Your task to perform on an android device: Open privacy settings Image 0: 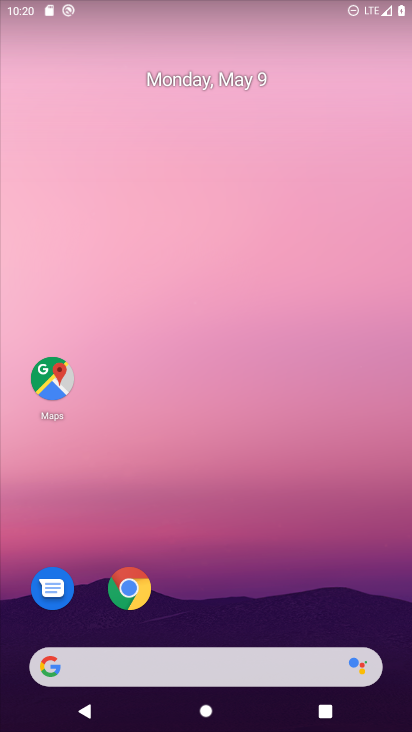
Step 0: drag from (261, 579) to (196, 172)
Your task to perform on an android device: Open privacy settings Image 1: 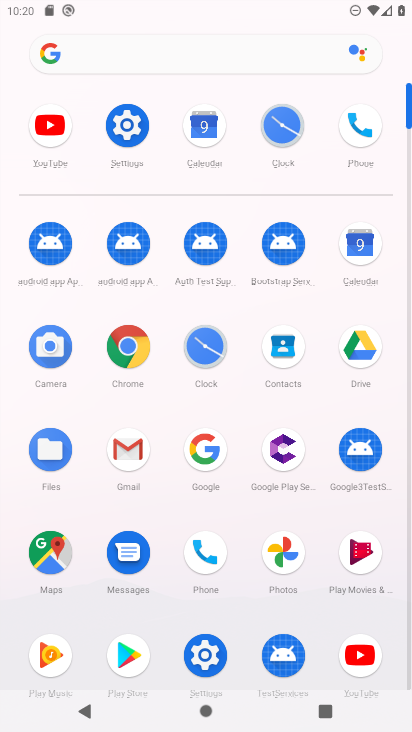
Step 1: click (118, 151)
Your task to perform on an android device: Open privacy settings Image 2: 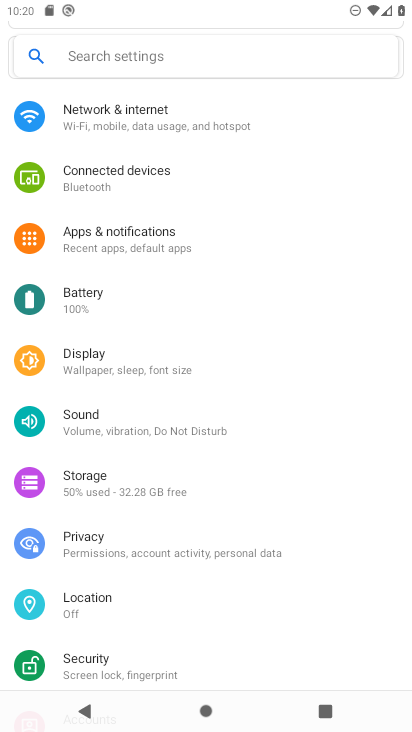
Step 2: click (124, 529)
Your task to perform on an android device: Open privacy settings Image 3: 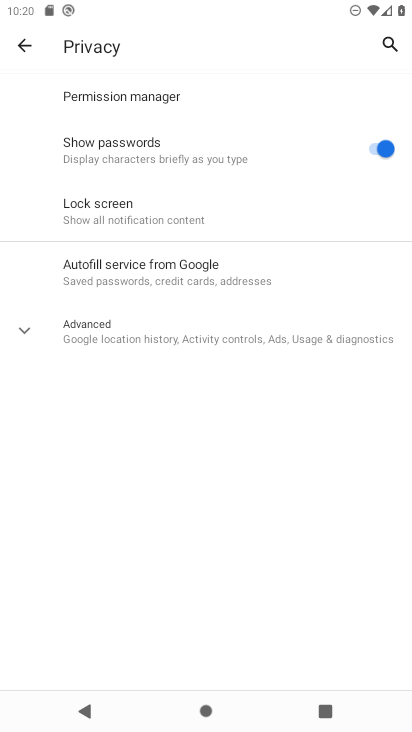
Step 3: task complete